Your task to perform on an android device: change keyboard looks Image 0: 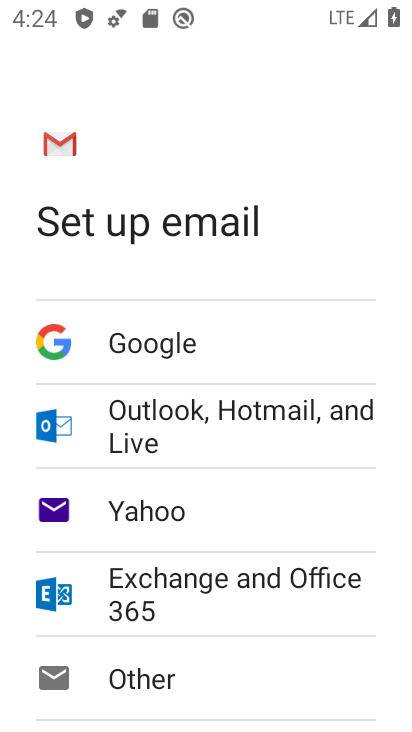
Step 0: press back button
Your task to perform on an android device: change keyboard looks Image 1: 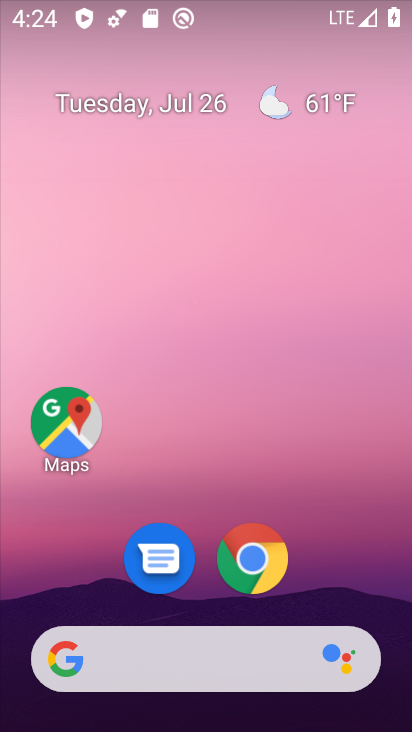
Step 1: drag from (94, 551) to (221, 13)
Your task to perform on an android device: change keyboard looks Image 2: 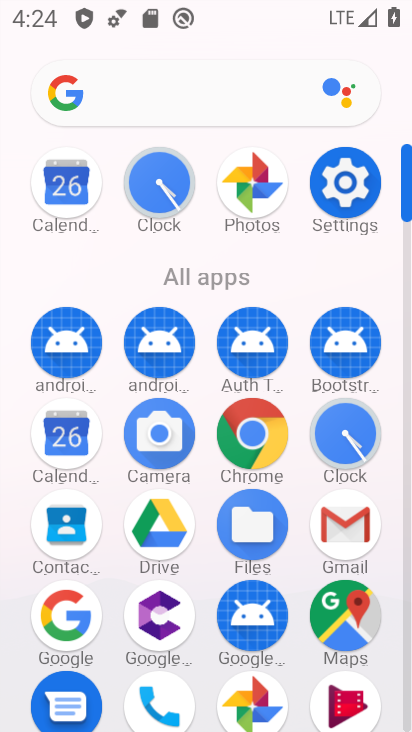
Step 2: click (349, 181)
Your task to perform on an android device: change keyboard looks Image 3: 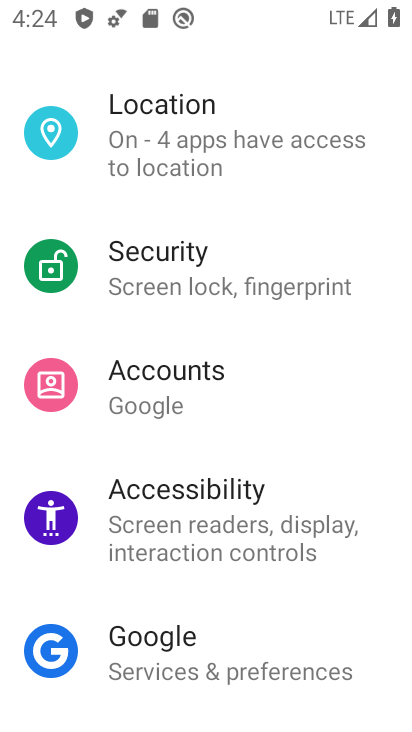
Step 3: drag from (159, 644) to (276, 2)
Your task to perform on an android device: change keyboard looks Image 4: 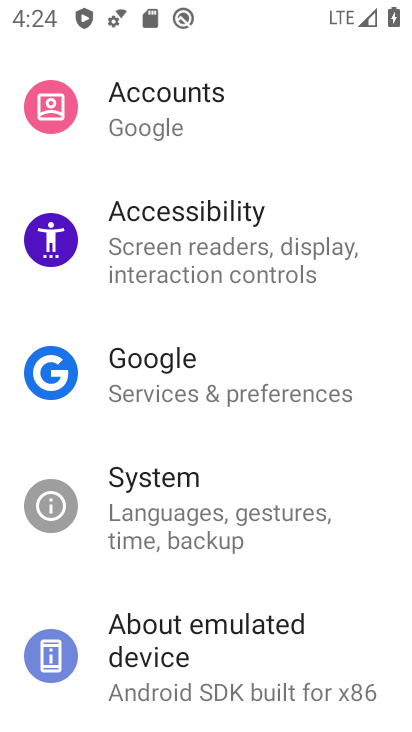
Step 4: click (162, 505)
Your task to perform on an android device: change keyboard looks Image 5: 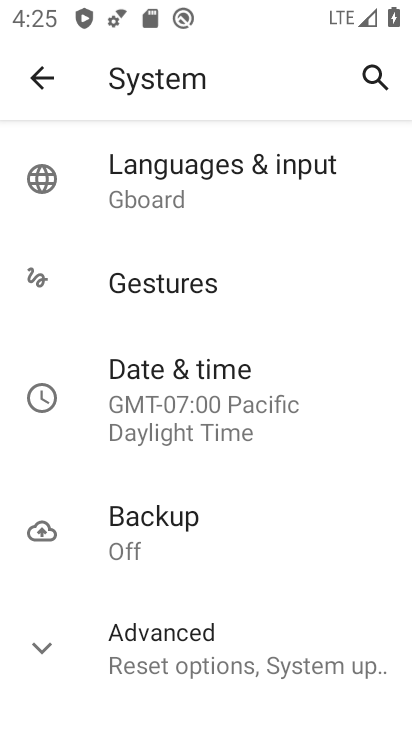
Step 5: click (171, 184)
Your task to perform on an android device: change keyboard looks Image 6: 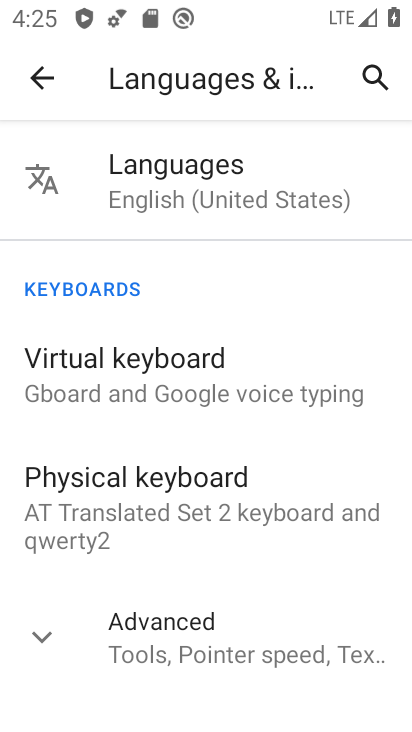
Step 6: click (106, 382)
Your task to perform on an android device: change keyboard looks Image 7: 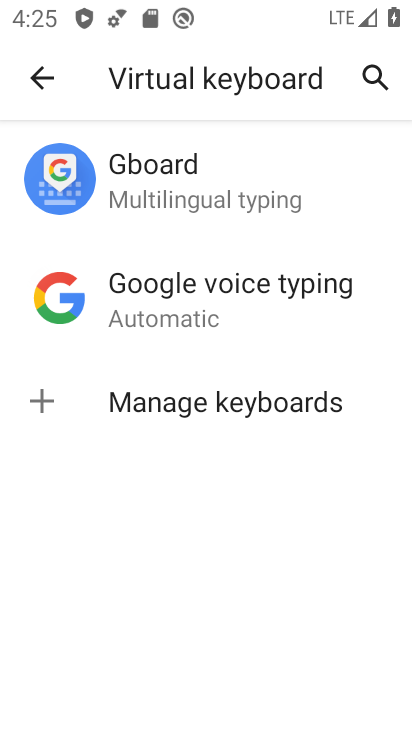
Step 7: click (198, 193)
Your task to perform on an android device: change keyboard looks Image 8: 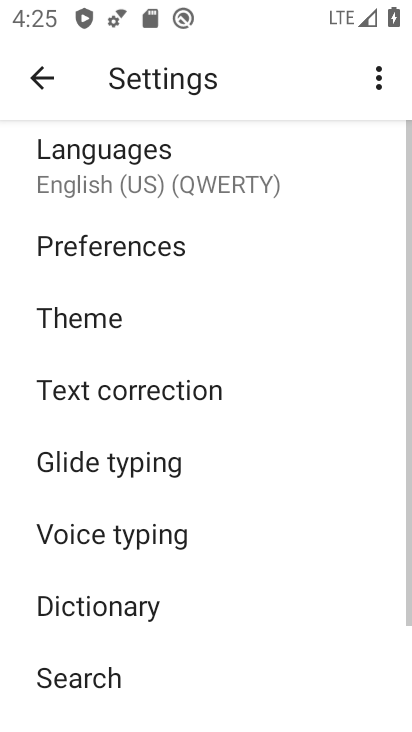
Step 8: click (115, 324)
Your task to perform on an android device: change keyboard looks Image 9: 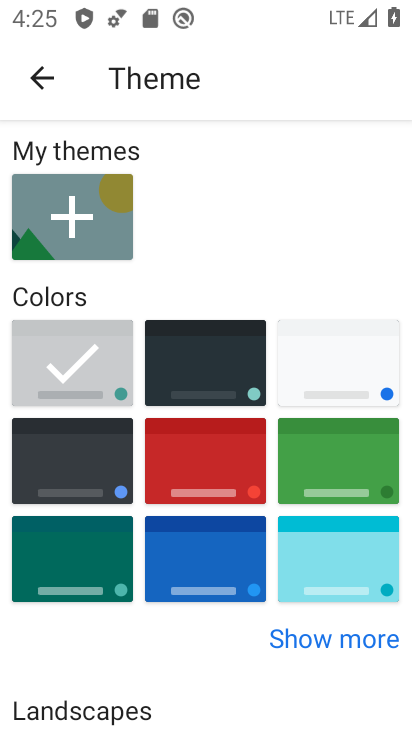
Step 9: click (197, 453)
Your task to perform on an android device: change keyboard looks Image 10: 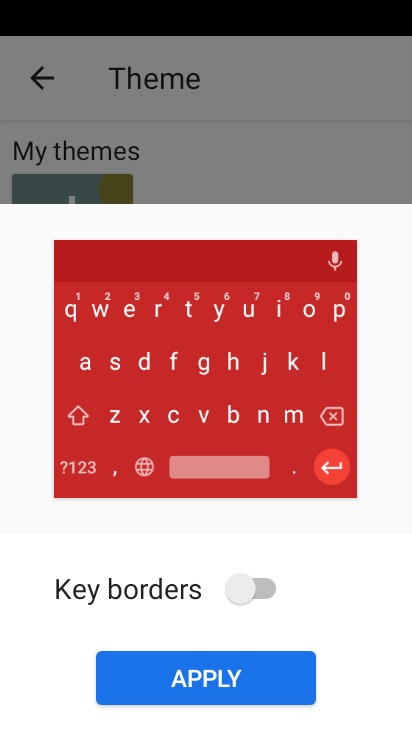
Step 10: click (187, 704)
Your task to perform on an android device: change keyboard looks Image 11: 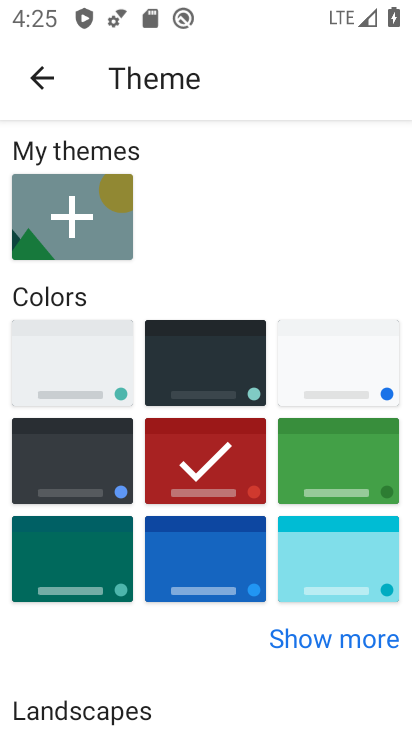
Step 11: task complete